Your task to perform on an android device: Toggle the flashlight Image 0: 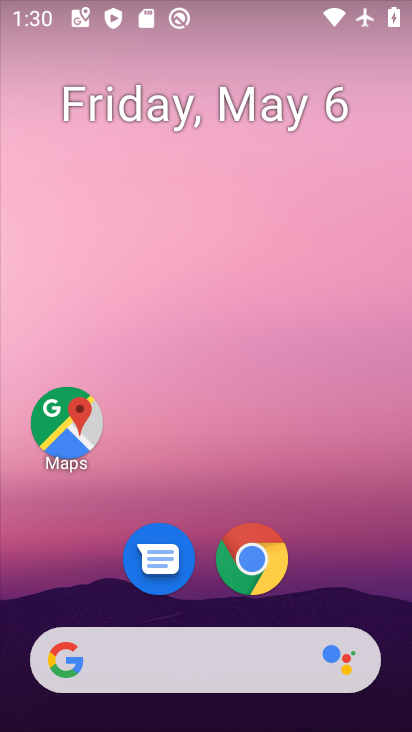
Step 0: drag from (271, 5) to (231, 532)
Your task to perform on an android device: Toggle the flashlight Image 1: 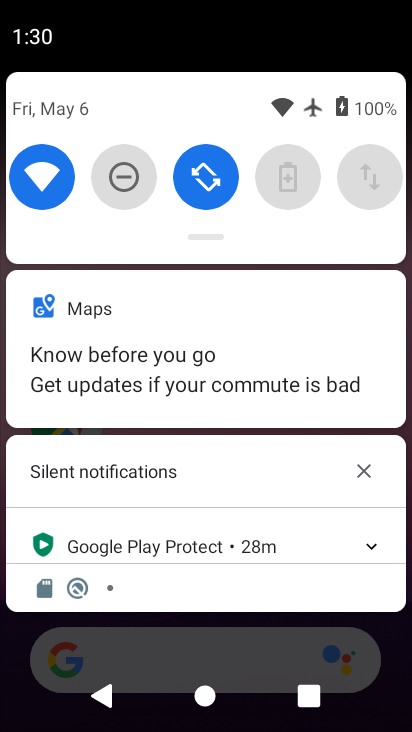
Step 1: task complete